Your task to perform on an android device: delete browsing data in the chrome app Image 0: 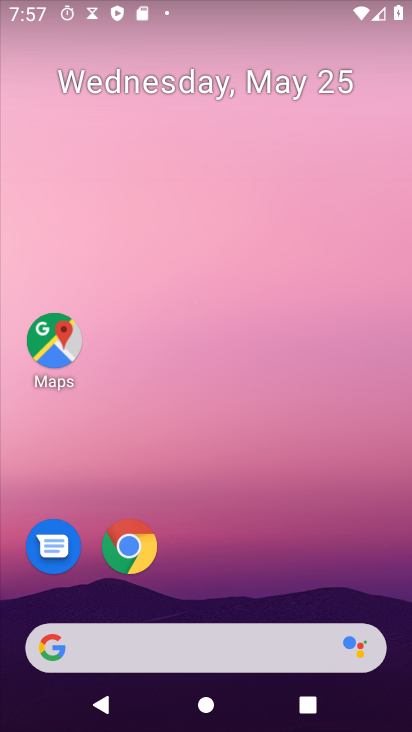
Step 0: click (136, 561)
Your task to perform on an android device: delete browsing data in the chrome app Image 1: 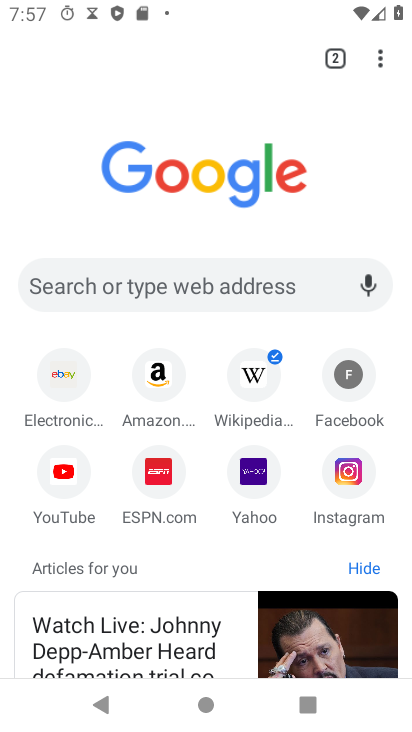
Step 1: click (372, 68)
Your task to perform on an android device: delete browsing data in the chrome app Image 2: 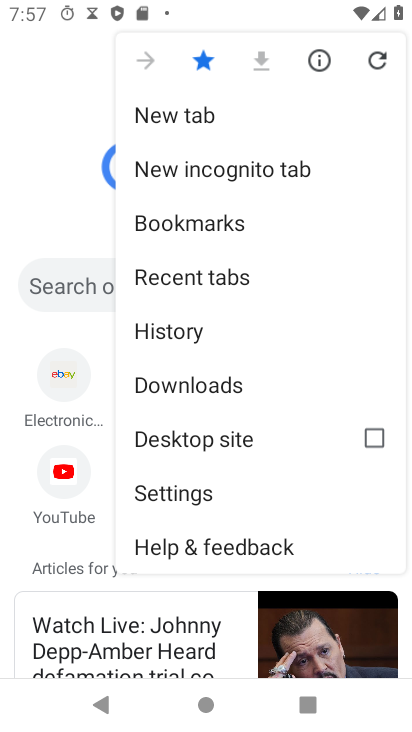
Step 2: click (179, 329)
Your task to perform on an android device: delete browsing data in the chrome app Image 3: 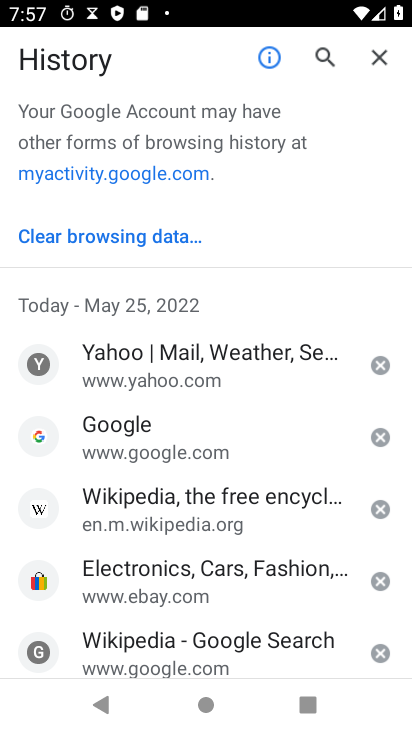
Step 3: click (106, 244)
Your task to perform on an android device: delete browsing data in the chrome app Image 4: 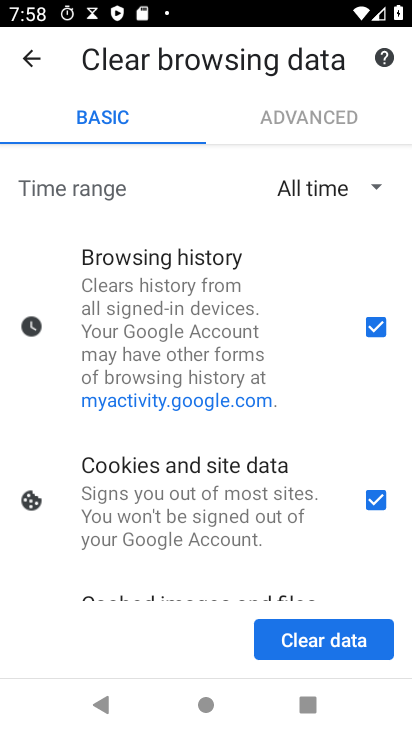
Step 4: drag from (237, 558) to (233, 321)
Your task to perform on an android device: delete browsing data in the chrome app Image 5: 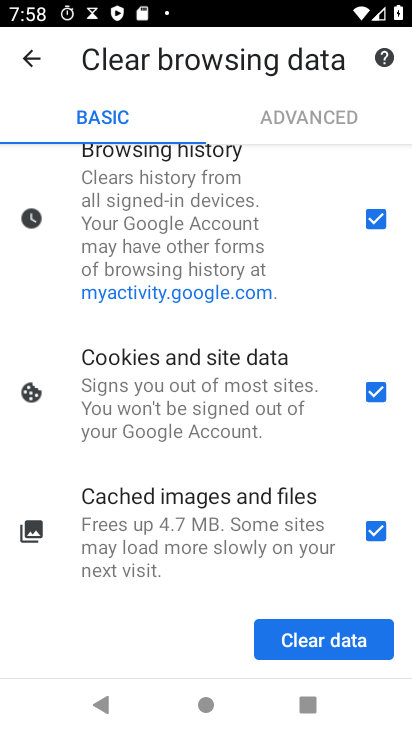
Step 5: click (308, 642)
Your task to perform on an android device: delete browsing data in the chrome app Image 6: 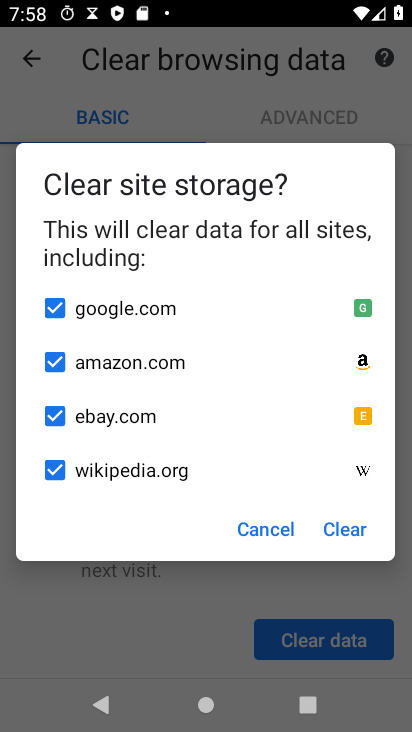
Step 6: click (355, 531)
Your task to perform on an android device: delete browsing data in the chrome app Image 7: 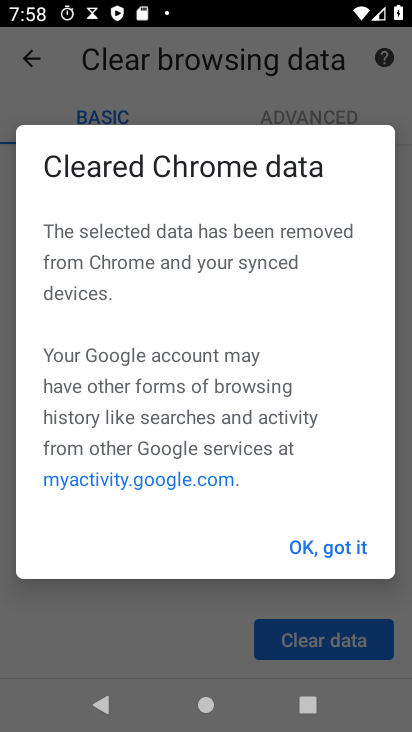
Step 7: click (315, 549)
Your task to perform on an android device: delete browsing data in the chrome app Image 8: 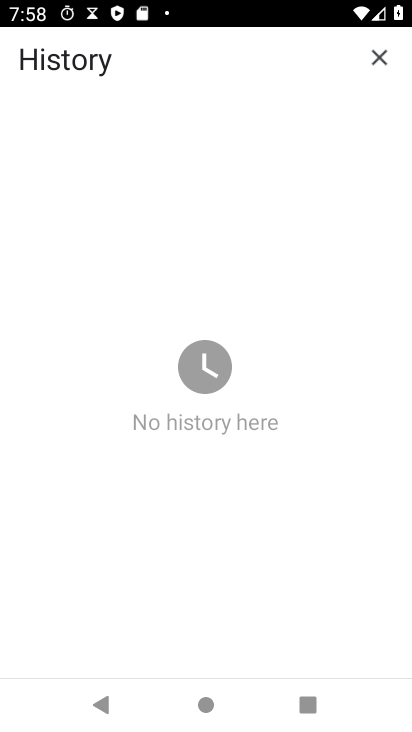
Step 8: task complete